Your task to perform on an android device: change the clock display to show seconds Image 0: 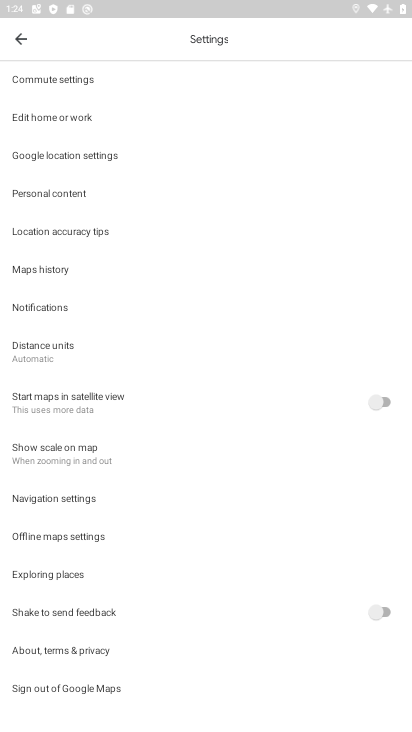
Step 0: press home button
Your task to perform on an android device: change the clock display to show seconds Image 1: 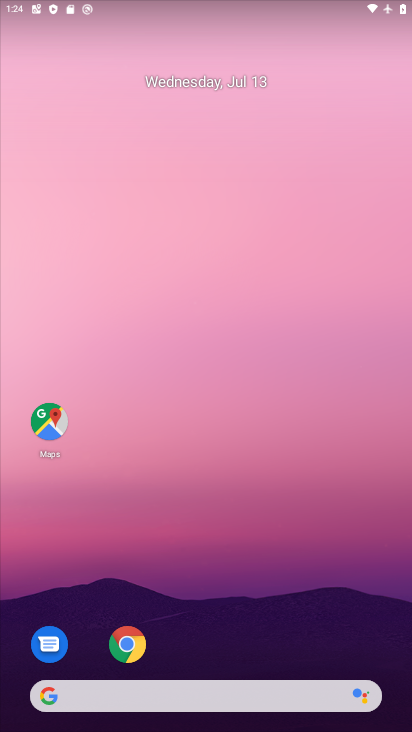
Step 1: drag from (287, 543) to (239, 103)
Your task to perform on an android device: change the clock display to show seconds Image 2: 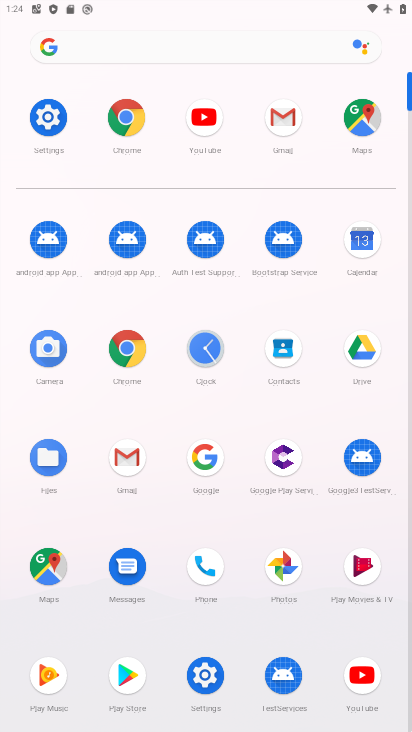
Step 2: click (205, 351)
Your task to perform on an android device: change the clock display to show seconds Image 3: 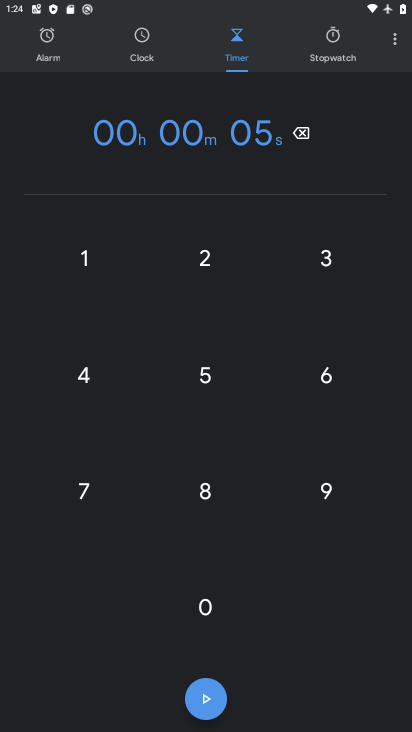
Step 3: click (404, 40)
Your task to perform on an android device: change the clock display to show seconds Image 4: 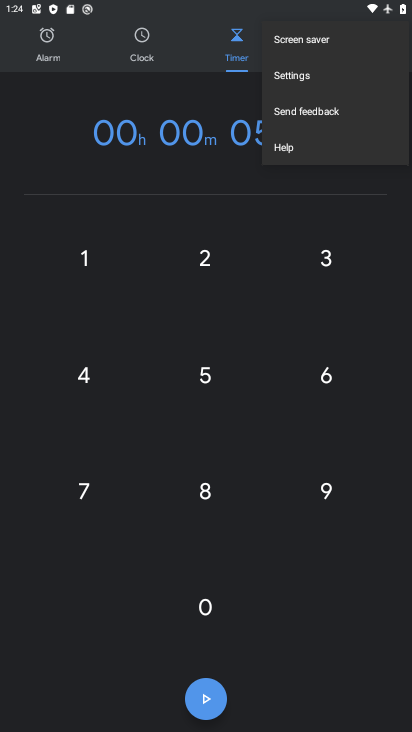
Step 4: click (305, 77)
Your task to perform on an android device: change the clock display to show seconds Image 5: 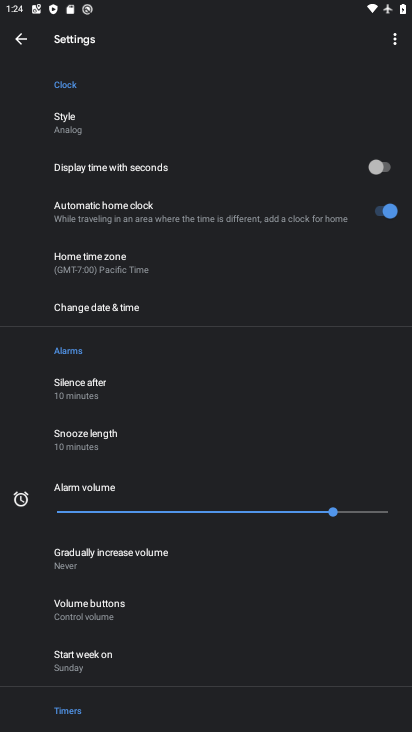
Step 5: click (375, 167)
Your task to perform on an android device: change the clock display to show seconds Image 6: 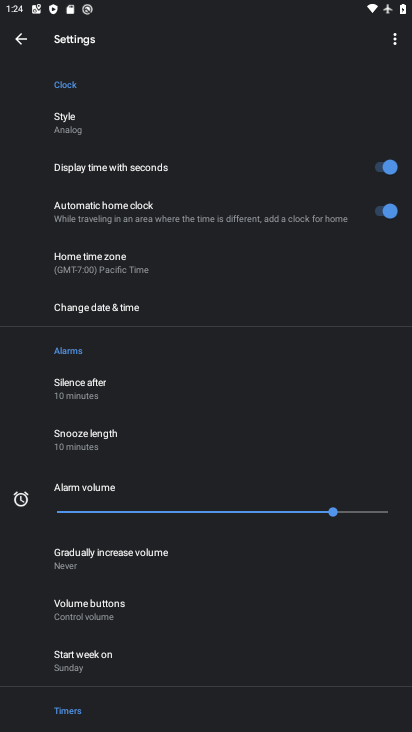
Step 6: task complete